Your task to perform on an android device: Go to ESPN.com Image 0: 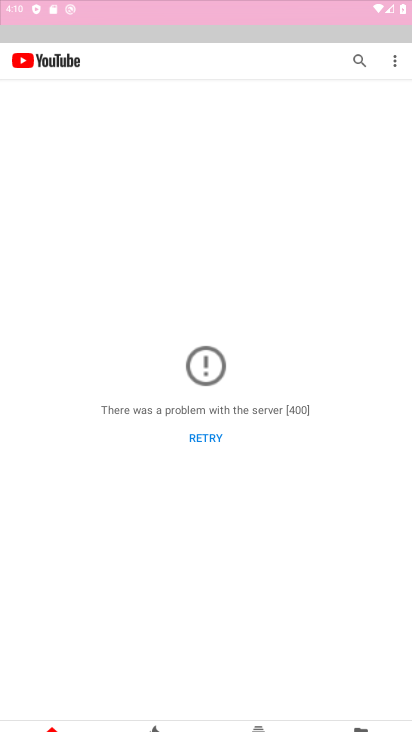
Step 0: drag from (172, 676) to (175, 206)
Your task to perform on an android device: Go to ESPN.com Image 1: 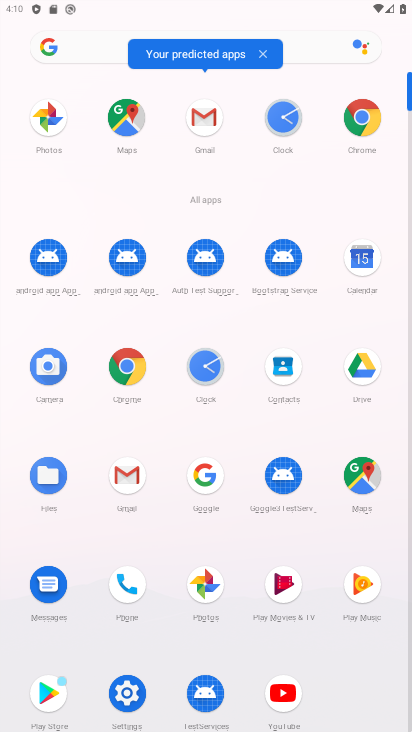
Step 1: click (133, 357)
Your task to perform on an android device: Go to ESPN.com Image 2: 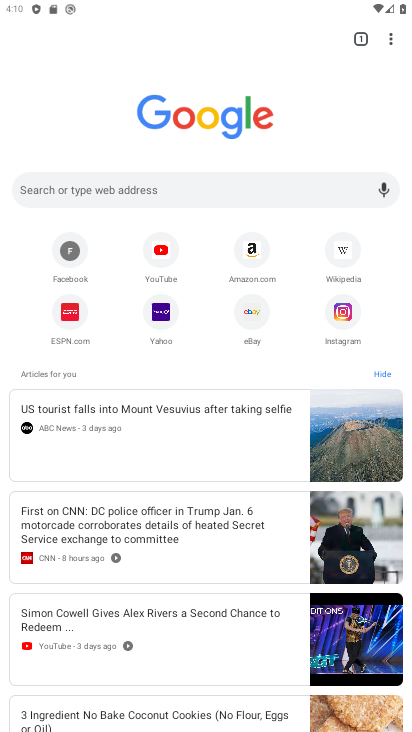
Step 2: click (57, 316)
Your task to perform on an android device: Go to ESPN.com Image 3: 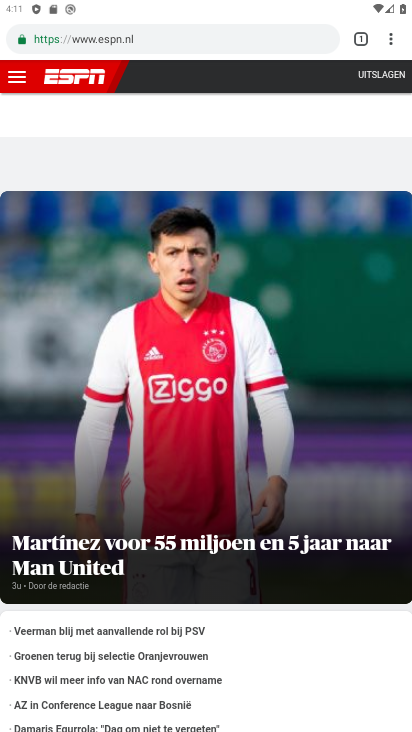
Step 3: task complete